Your task to perform on an android device: Open the map Image 0: 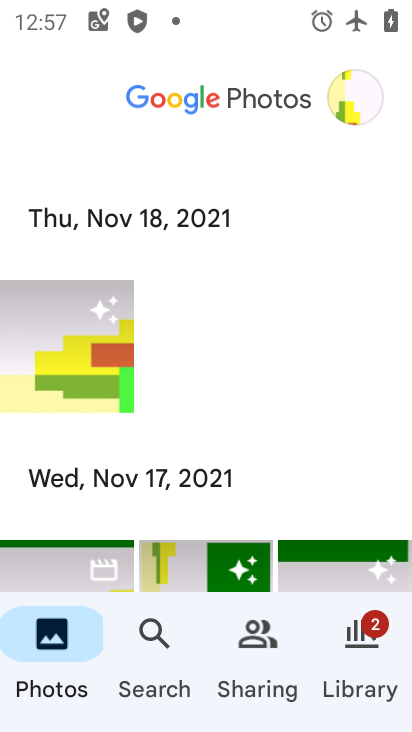
Step 0: press home button
Your task to perform on an android device: Open the map Image 1: 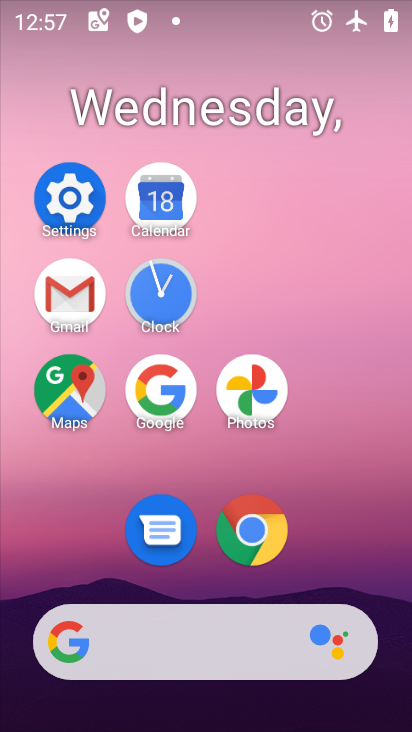
Step 1: click (66, 375)
Your task to perform on an android device: Open the map Image 2: 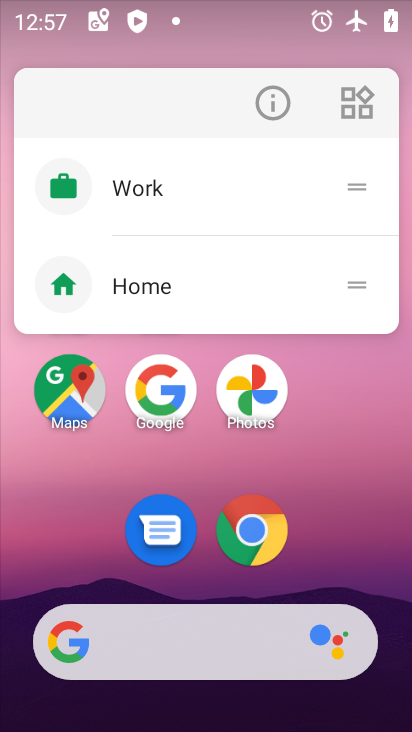
Step 2: click (51, 386)
Your task to perform on an android device: Open the map Image 3: 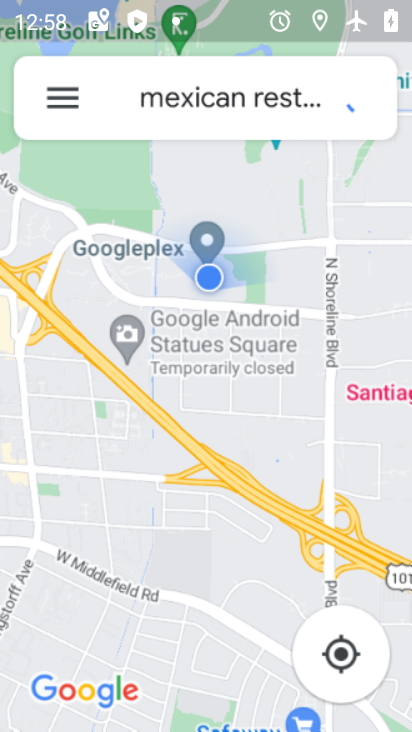
Step 3: task complete